Your task to perform on an android device: open device folders in google photos Image 0: 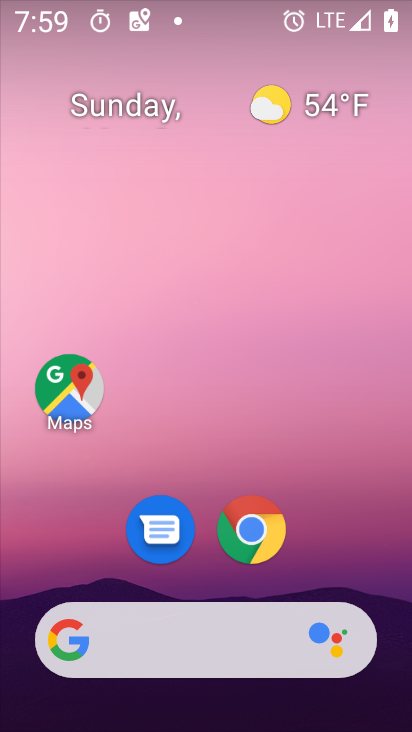
Step 0: drag from (201, 575) to (218, 55)
Your task to perform on an android device: open device folders in google photos Image 1: 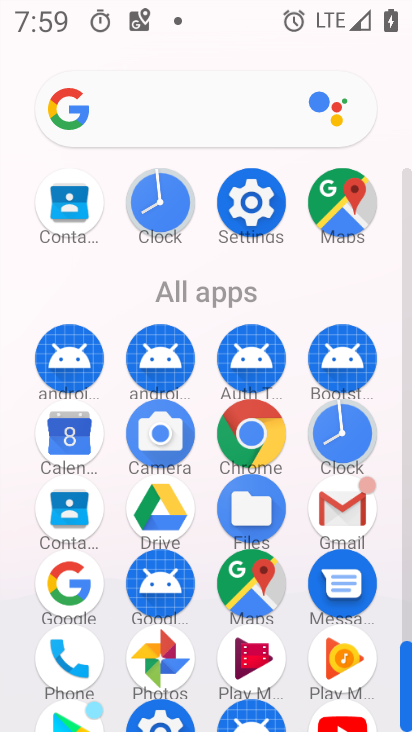
Step 1: drag from (203, 556) to (228, 226)
Your task to perform on an android device: open device folders in google photos Image 2: 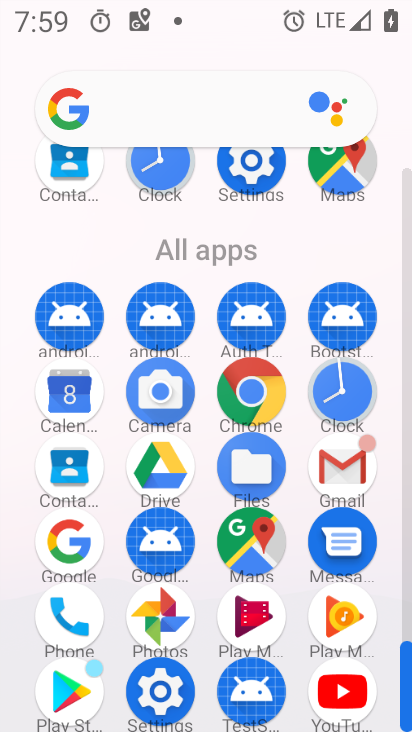
Step 2: click (161, 597)
Your task to perform on an android device: open device folders in google photos Image 3: 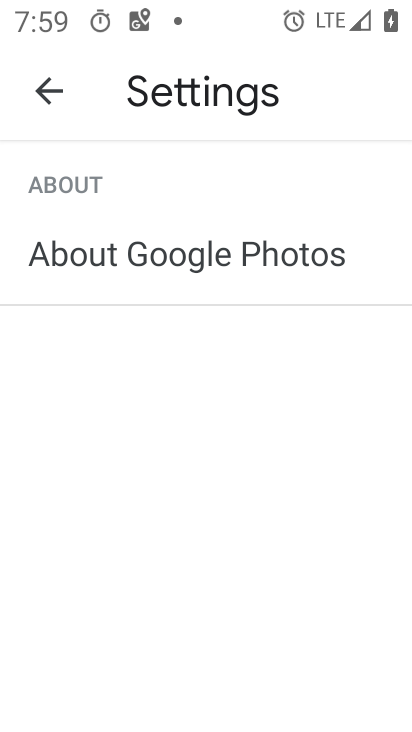
Step 3: click (44, 93)
Your task to perform on an android device: open device folders in google photos Image 4: 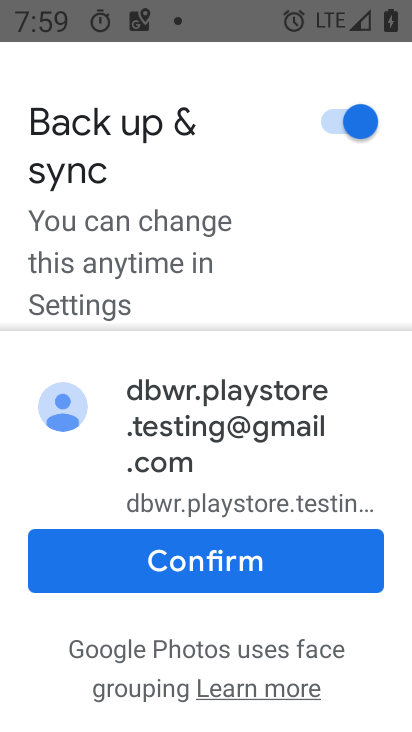
Step 4: click (190, 572)
Your task to perform on an android device: open device folders in google photos Image 5: 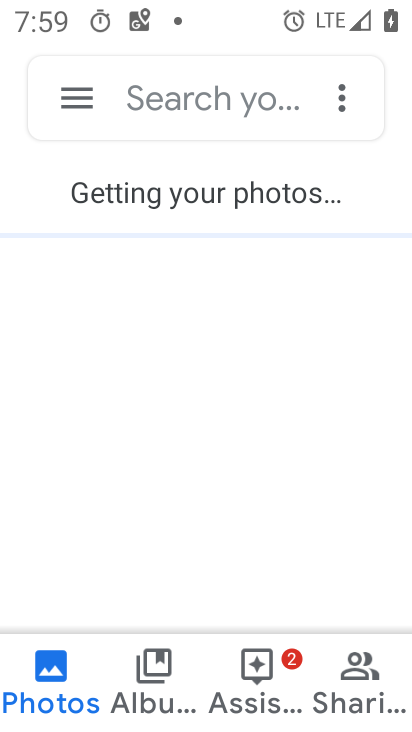
Step 5: click (71, 115)
Your task to perform on an android device: open device folders in google photos Image 6: 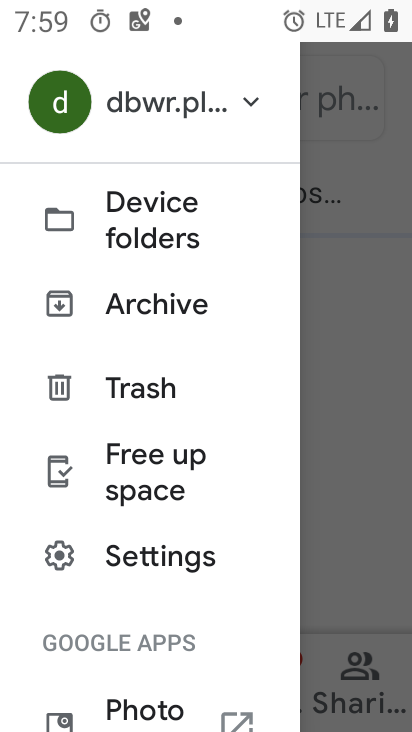
Step 6: click (119, 233)
Your task to perform on an android device: open device folders in google photos Image 7: 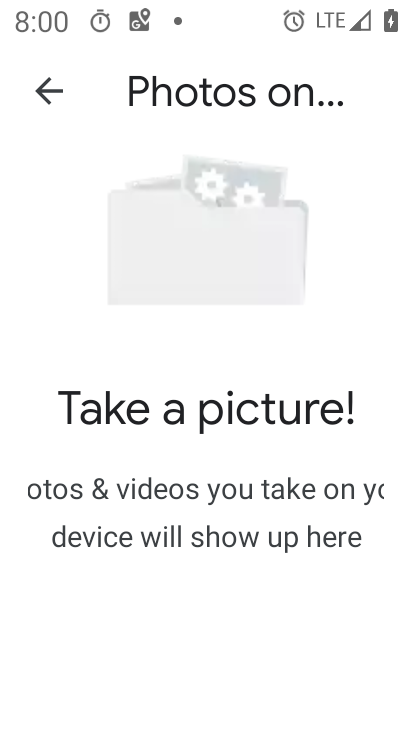
Step 7: task complete